Your task to perform on an android device: toggle location history Image 0: 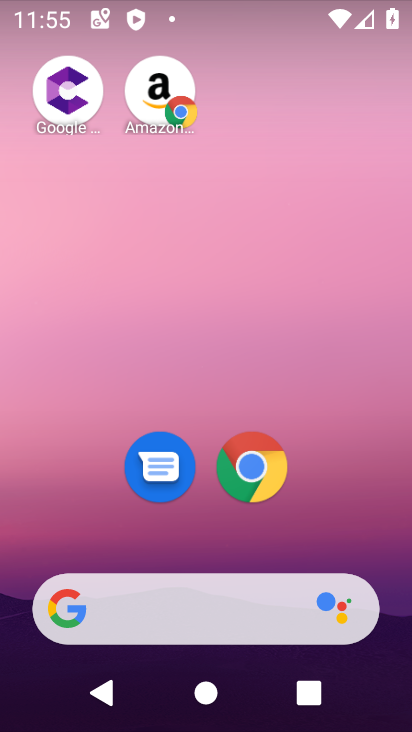
Step 0: drag from (71, 377) to (398, 114)
Your task to perform on an android device: toggle location history Image 1: 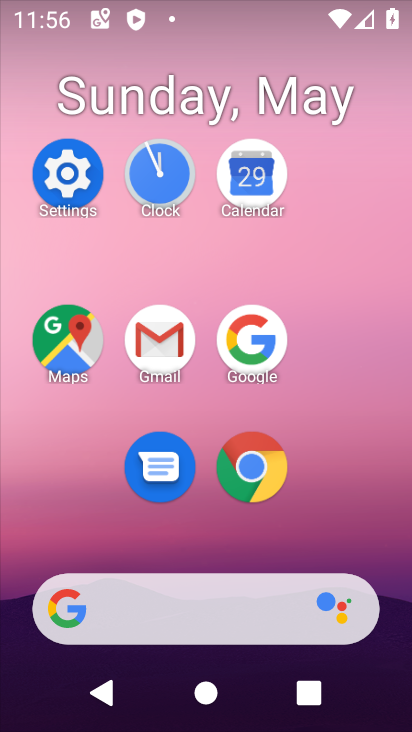
Step 1: click (81, 185)
Your task to perform on an android device: toggle location history Image 2: 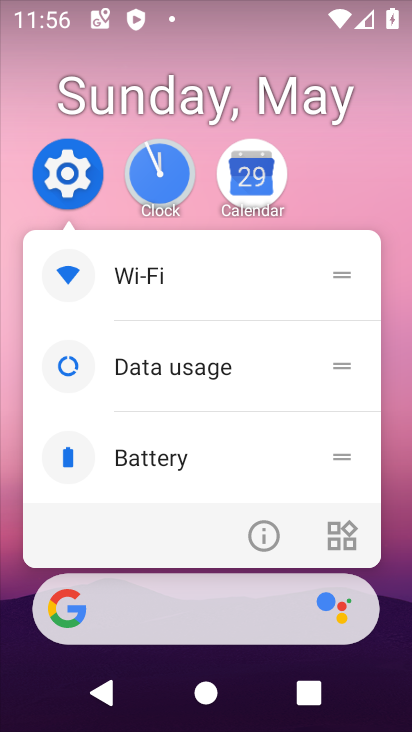
Step 2: click (81, 185)
Your task to perform on an android device: toggle location history Image 3: 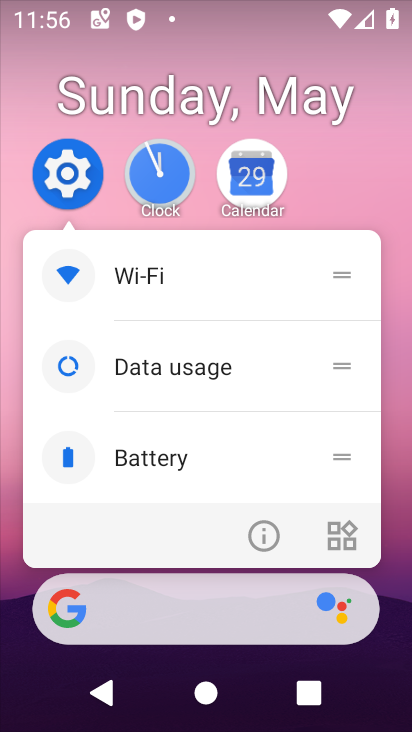
Step 3: click (81, 185)
Your task to perform on an android device: toggle location history Image 4: 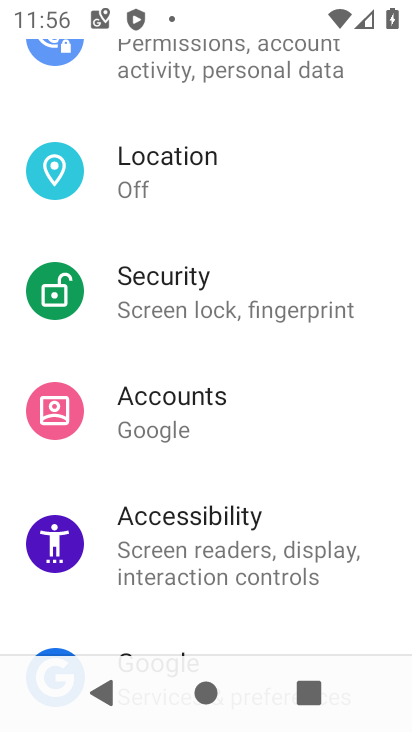
Step 4: click (201, 165)
Your task to perform on an android device: toggle location history Image 5: 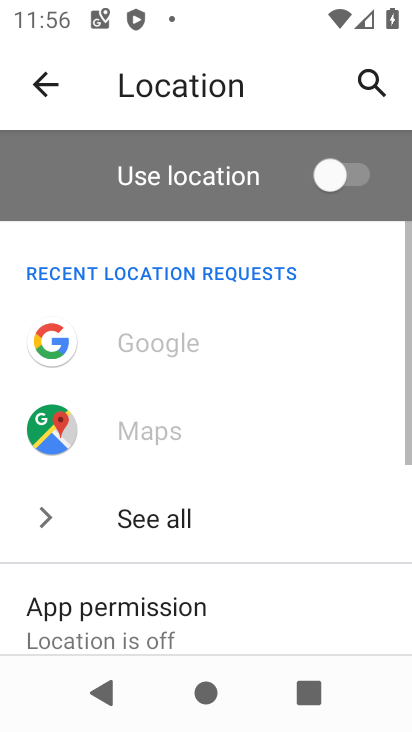
Step 5: drag from (307, 603) to (218, 95)
Your task to perform on an android device: toggle location history Image 6: 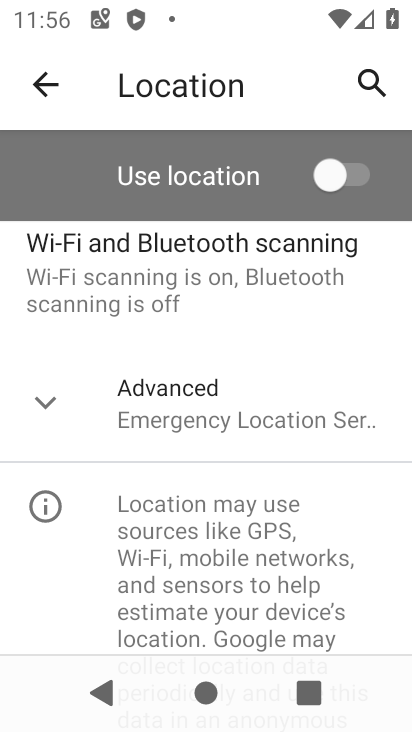
Step 6: click (299, 416)
Your task to perform on an android device: toggle location history Image 7: 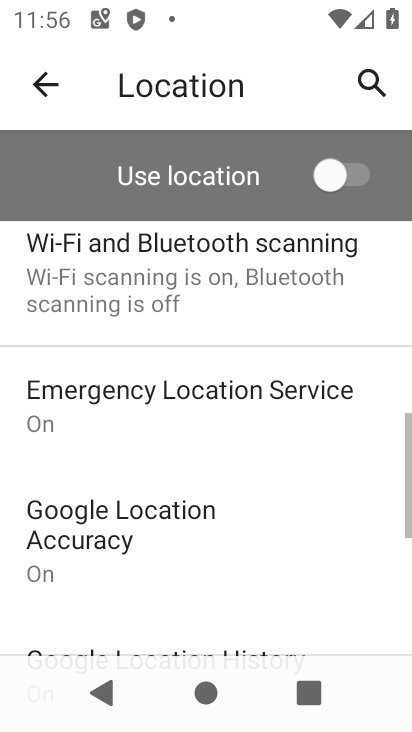
Step 7: drag from (277, 540) to (245, 40)
Your task to perform on an android device: toggle location history Image 8: 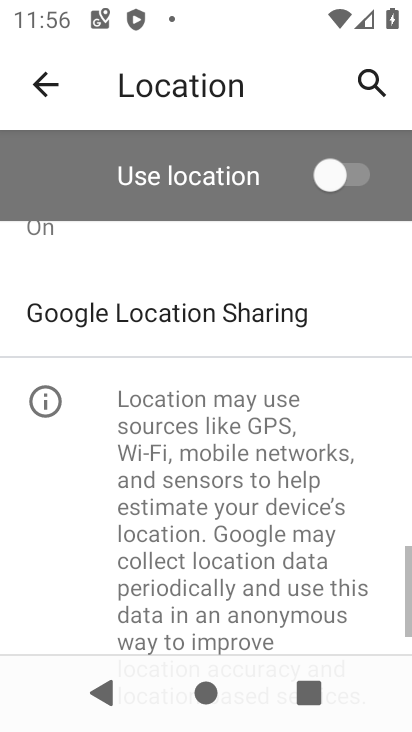
Step 8: drag from (291, 502) to (330, 98)
Your task to perform on an android device: toggle location history Image 9: 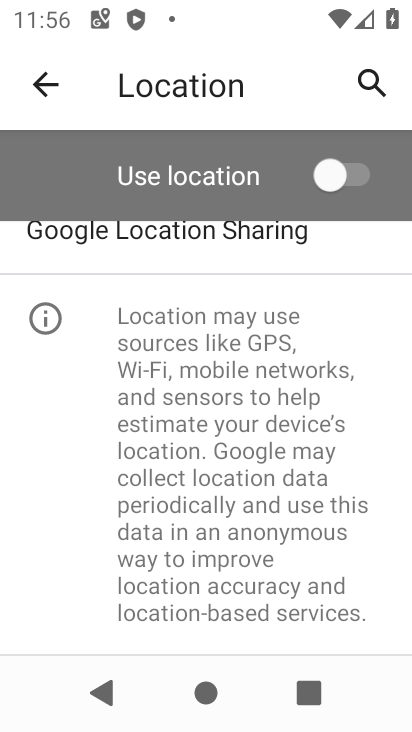
Step 9: drag from (285, 383) to (272, 619)
Your task to perform on an android device: toggle location history Image 10: 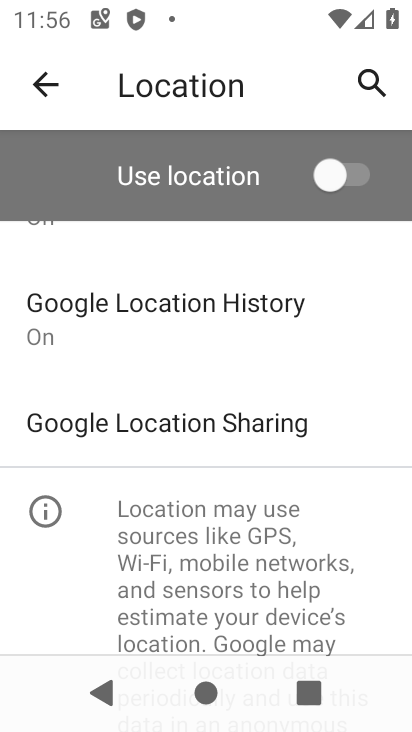
Step 10: click (281, 303)
Your task to perform on an android device: toggle location history Image 11: 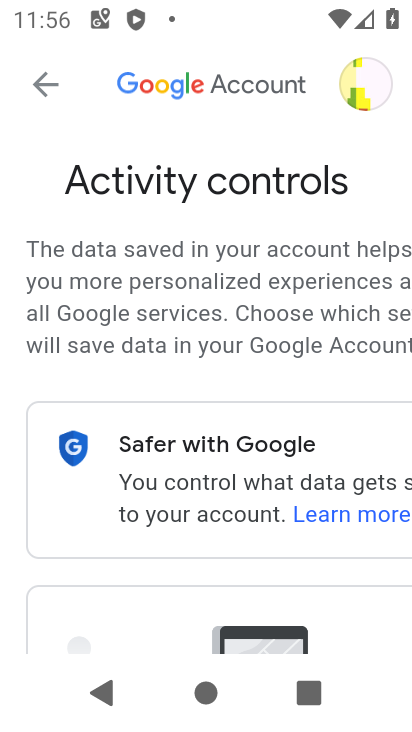
Step 11: drag from (261, 537) to (237, 116)
Your task to perform on an android device: toggle location history Image 12: 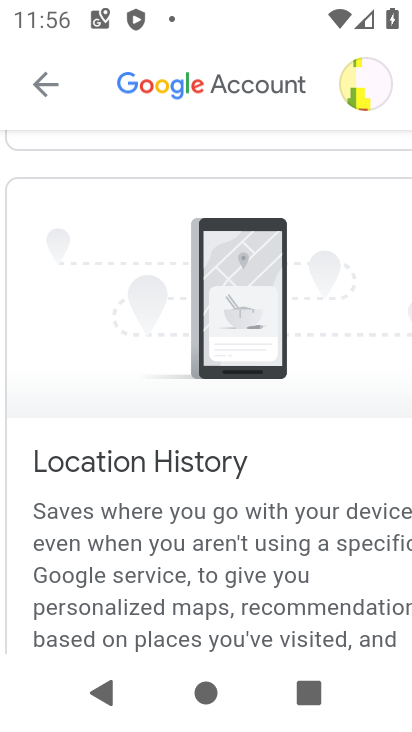
Step 12: drag from (347, 587) to (363, 222)
Your task to perform on an android device: toggle location history Image 13: 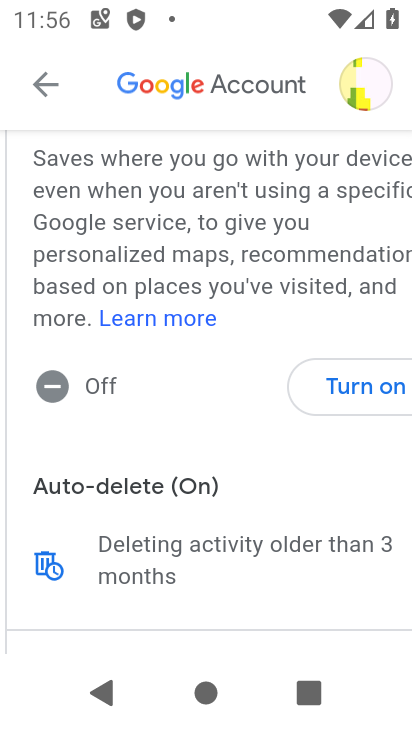
Step 13: click (346, 411)
Your task to perform on an android device: toggle location history Image 14: 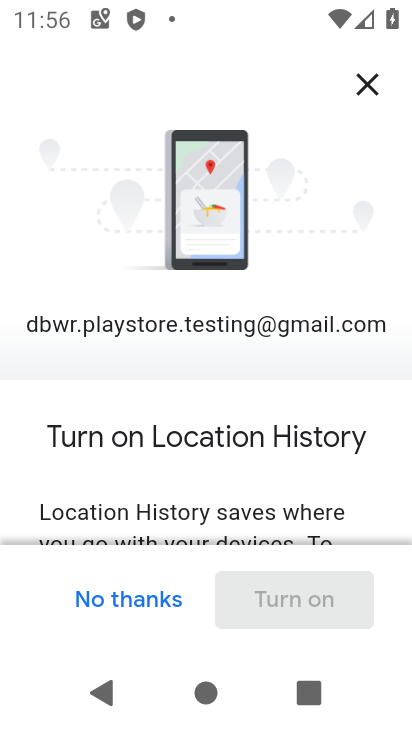
Step 14: drag from (310, 534) to (320, 158)
Your task to perform on an android device: toggle location history Image 15: 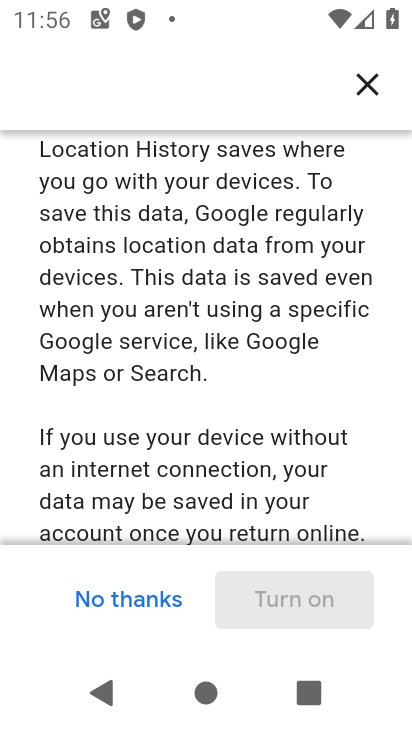
Step 15: drag from (291, 560) to (302, 154)
Your task to perform on an android device: toggle location history Image 16: 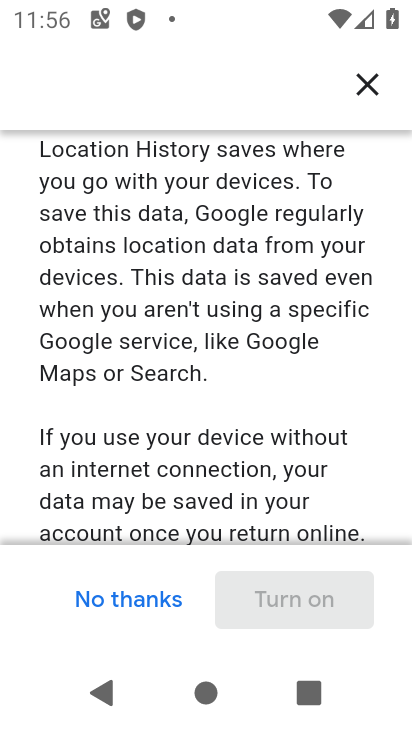
Step 16: drag from (254, 491) to (243, 175)
Your task to perform on an android device: toggle location history Image 17: 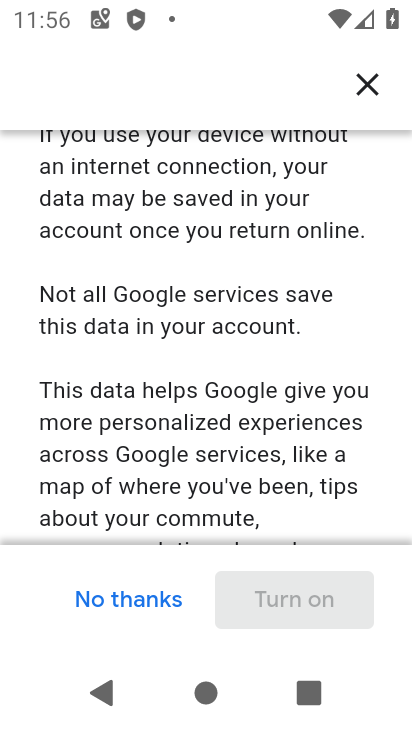
Step 17: drag from (268, 502) to (240, 151)
Your task to perform on an android device: toggle location history Image 18: 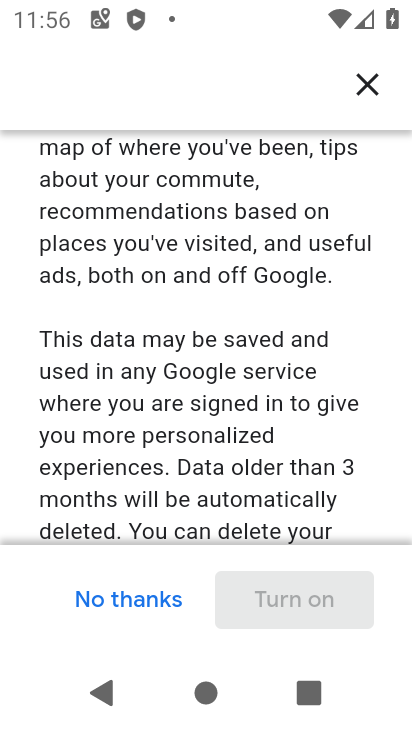
Step 18: drag from (285, 515) to (286, 106)
Your task to perform on an android device: toggle location history Image 19: 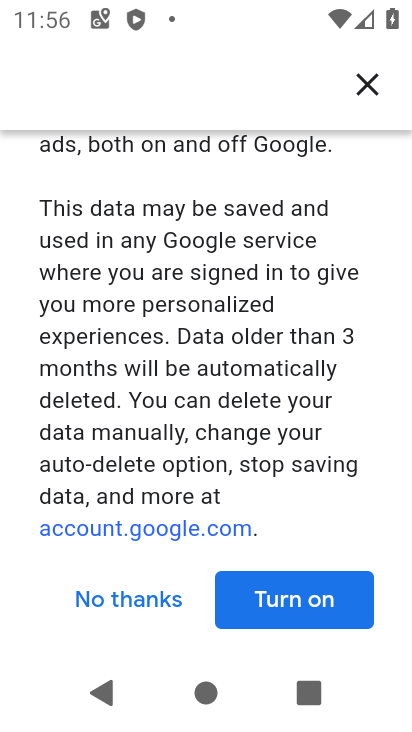
Step 19: click (290, 604)
Your task to perform on an android device: toggle location history Image 20: 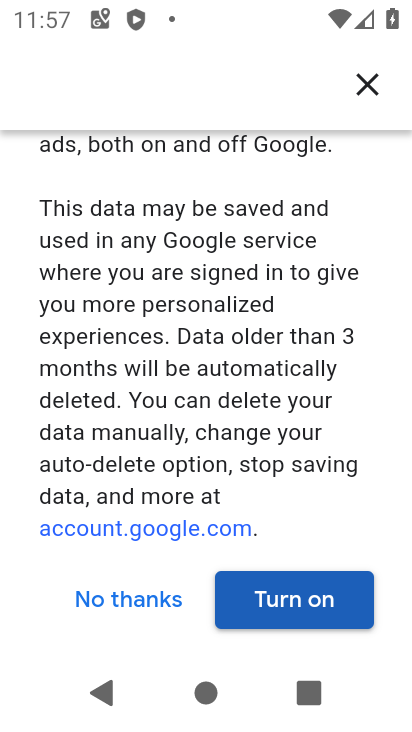
Step 20: click (311, 600)
Your task to perform on an android device: toggle location history Image 21: 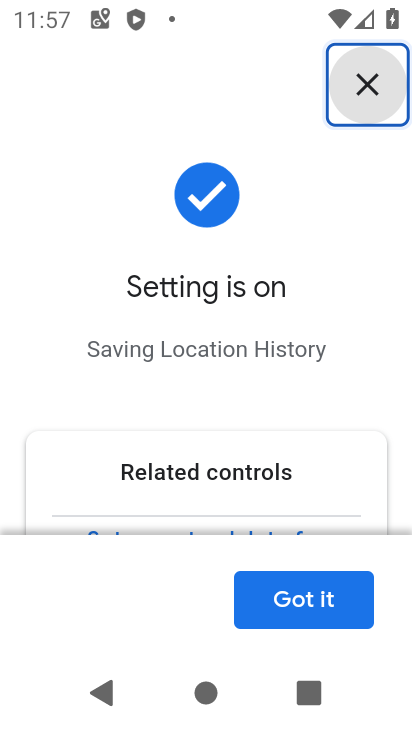
Step 21: click (311, 594)
Your task to perform on an android device: toggle location history Image 22: 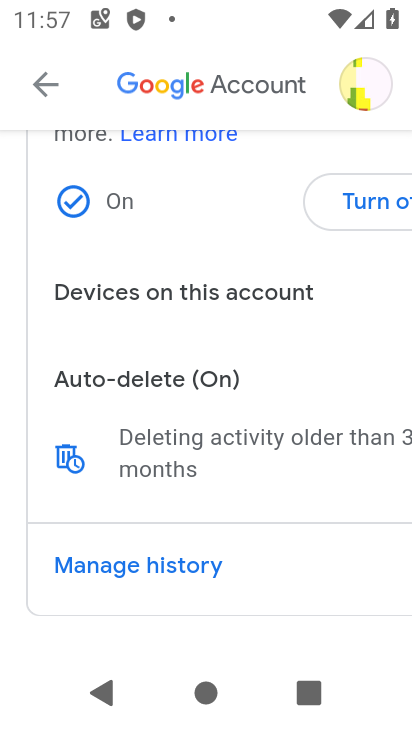
Step 22: task complete